Your task to perform on an android device: Open the stopwatch Image 0: 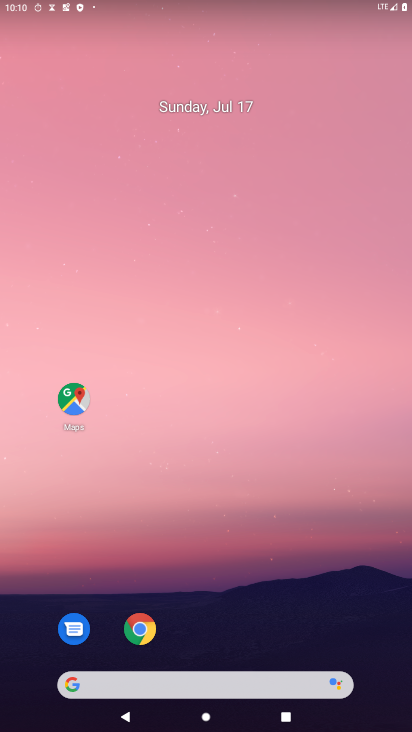
Step 0: drag from (225, 717) to (194, 109)
Your task to perform on an android device: Open the stopwatch Image 1: 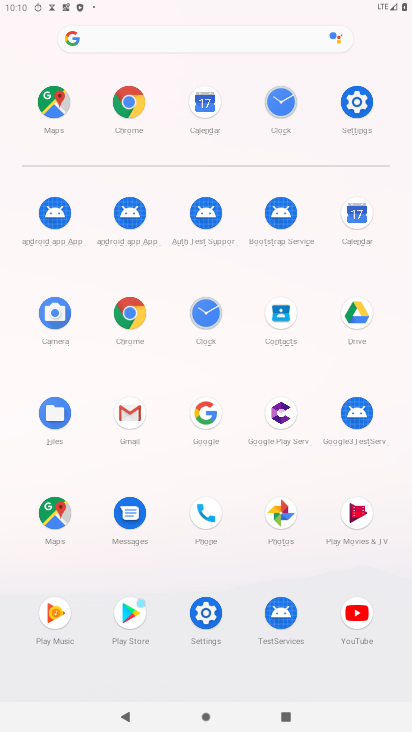
Step 1: click (207, 310)
Your task to perform on an android device: Open the stopwatch Image 2: 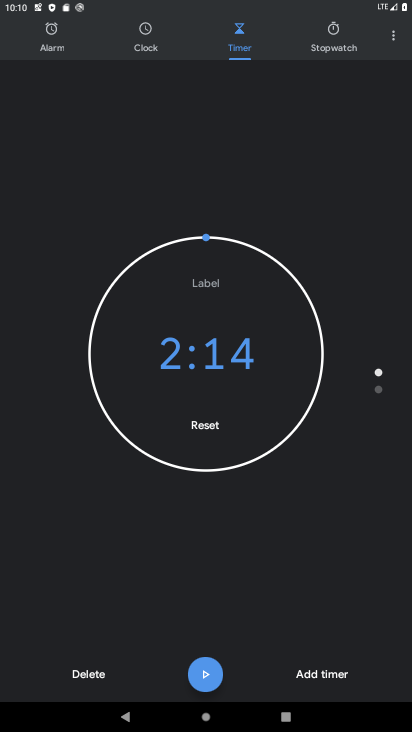
Step 2: click (336, 29)
Your task to perform on an android device: Open the stopwatch Image 3: 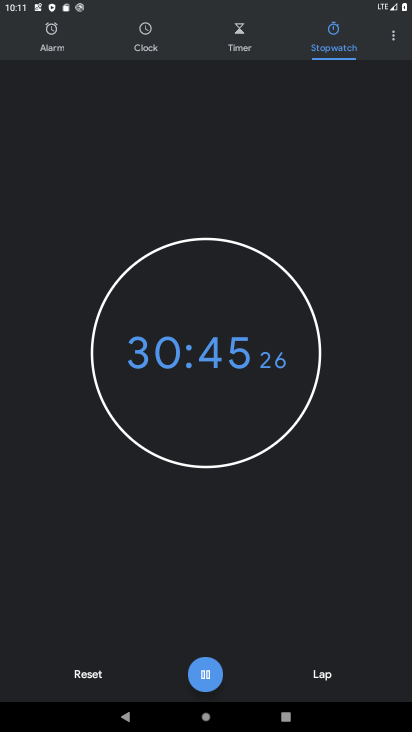
Step 3: task complete